Your task to perform on an android device: Open ESPN.com Image 0: 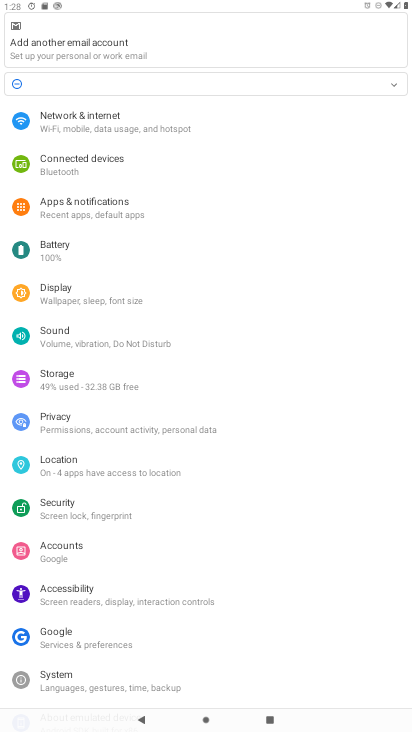
Step 0: press home button
Your task to perform on an android device: Open ESPN.com Image 1: 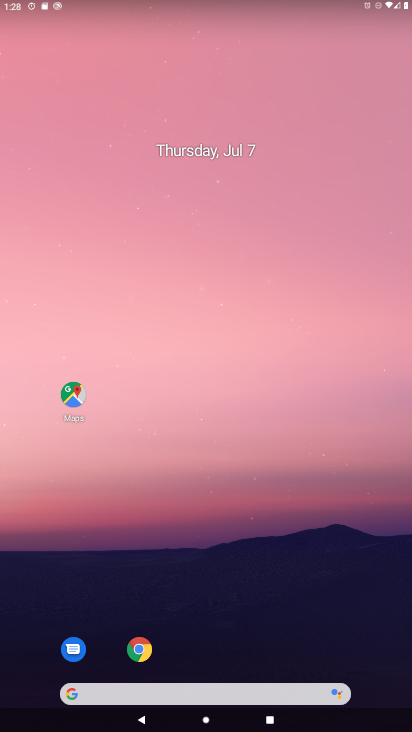
Step 1: drag from (183, 665) to (126, 14)
Your task to perform on an android device: Open ESPN.com Image 2: 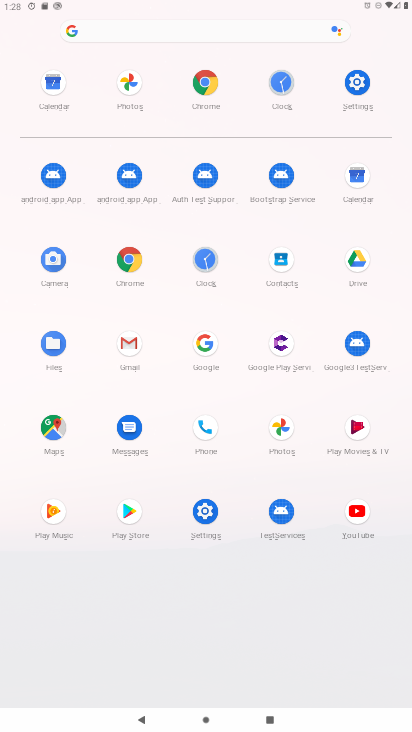
Step 2: click (121, 245)
Your task to perform on an android device: Open ESPN.com Image 3: 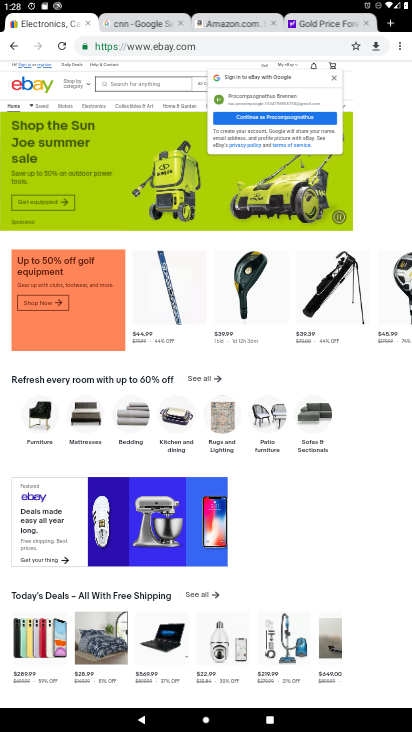
Step 3: click (385, 22)
Your task to perform on an android device: Open ESPN.com Image 4: 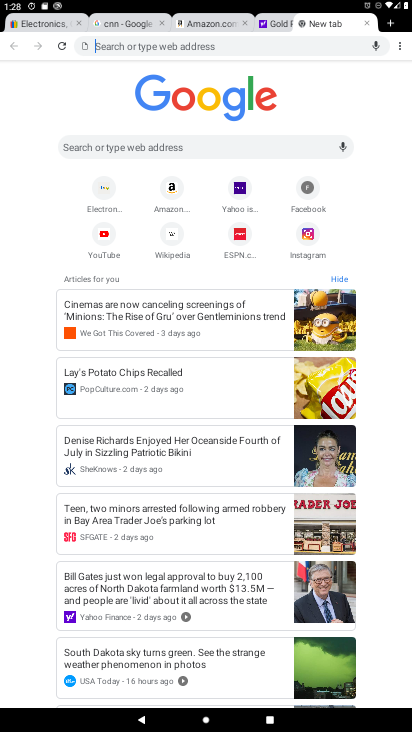
Step 4: click (239, 230)
Your task to perform on an android device: Open ESPN.com Image 5: 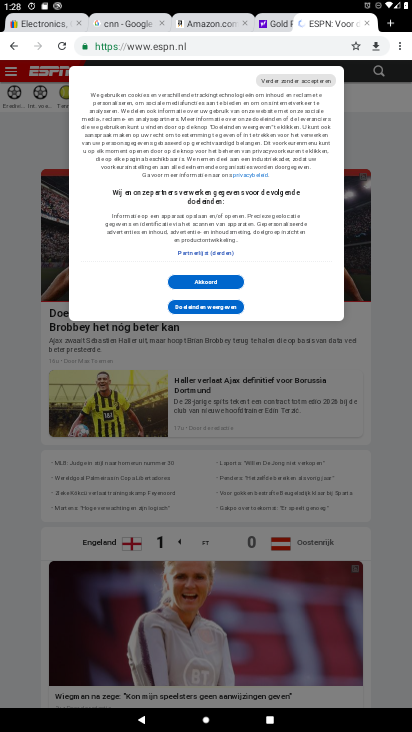
Step 5: task complete